Your task to perform on an android device: Open the calendar and show me this week's events? Image 0: 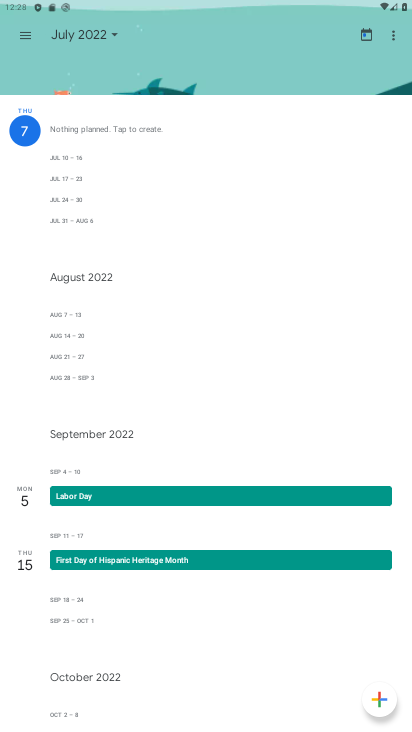
Step 0: click (236, 635)
Your task to perform on an android device: Open the calendar and show me this week's events? Image 1: 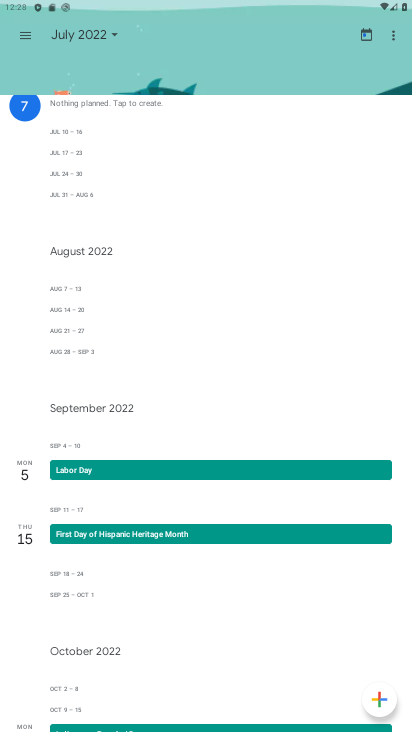
Step 1: click (27, 38)
Your task to perform on an android device: Open the calendar and show me this week's events? Image 2: 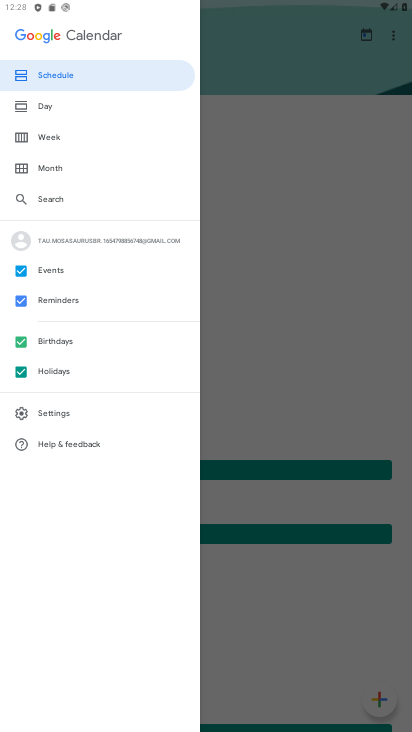
Step 2: click (41, 131)
Your task to perform on an android device: Open the calendar and show me this week's events? Image 3: 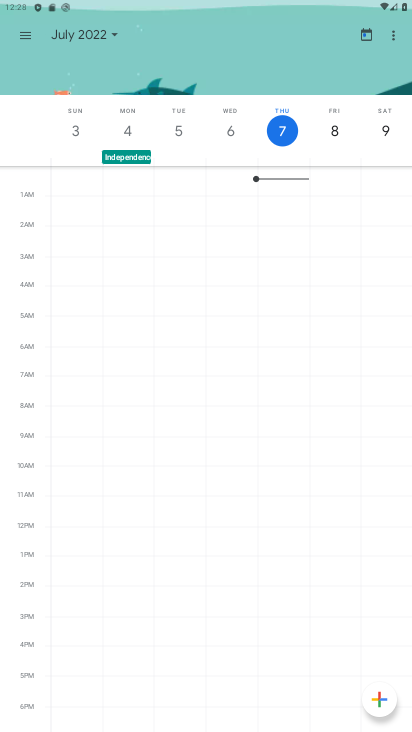
Step 3: task complete